Your task to perform on an android device: check android version Image 0: 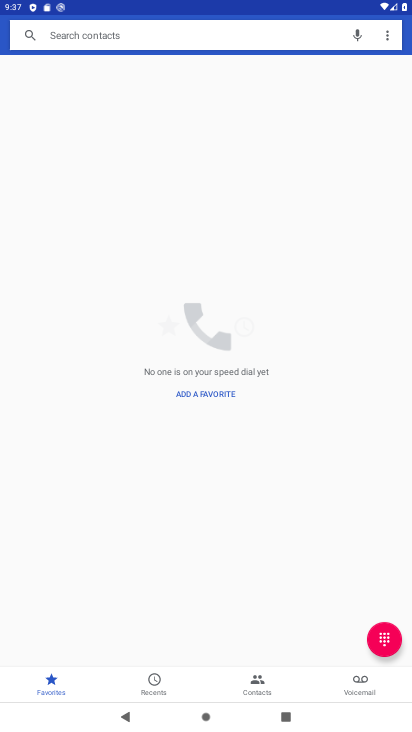
Step 0: press home button
Your task to perform on an android device: check android version Image 1: 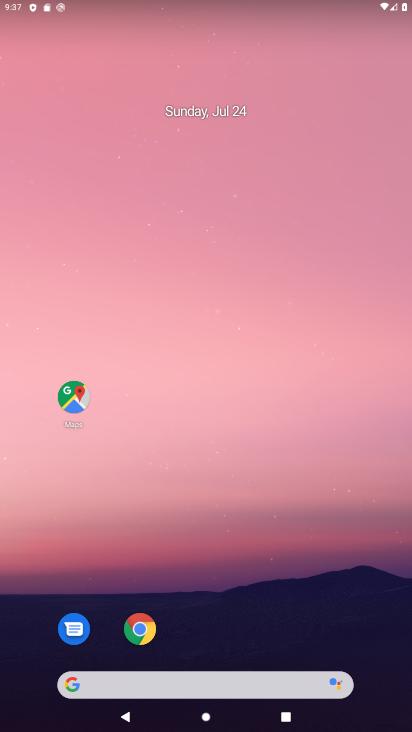
Step 1: drag from (168, 681) to (256, 132)
Your task to perform on an android device: check android version Image 2: 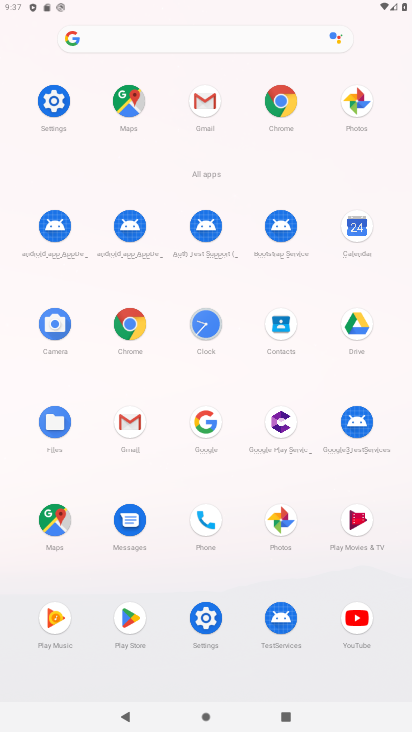
Step 2: click (52, 102)
Your task to perform on an android device: check android version Image 3: 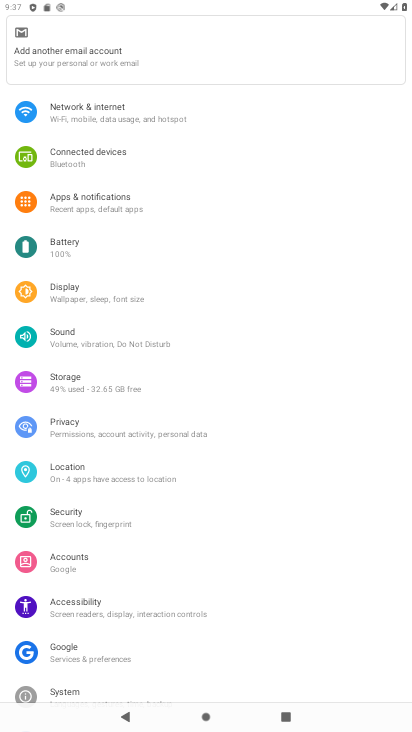
Step 3: drag from (106, 584) to (137, 460)
Your task to perform on an android device: check android version Image 4: 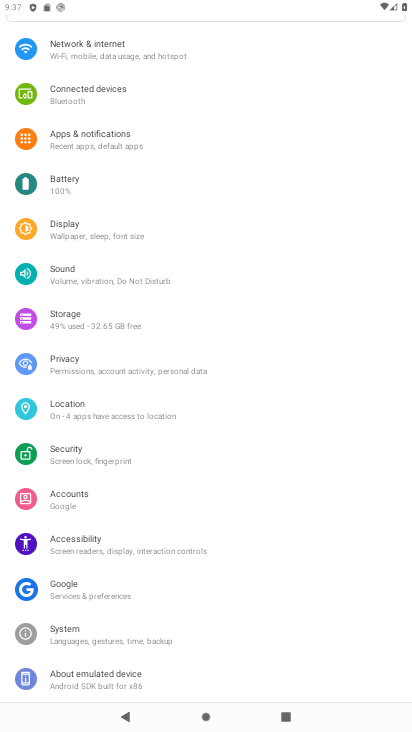
Step 4: click (94, 679)
Your task to perform on an android device: check android version Image 5: 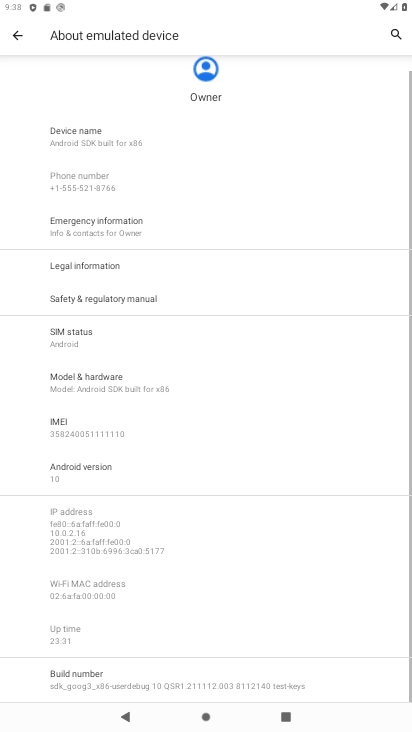
Step 5: click (106, 472)
Your task to perform on an android device: check android version Image 6: 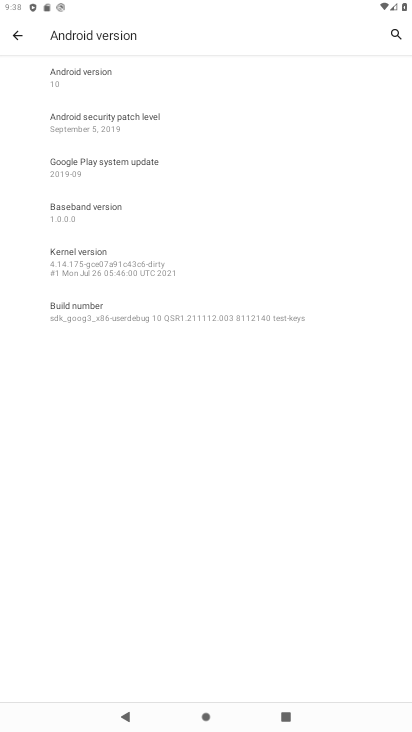
Step 6: task complete